Your task to perform on an android device: change alarm snooze length Image 0: 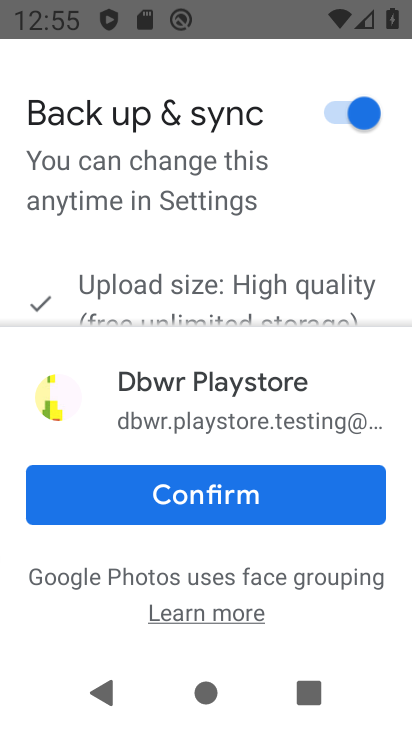
Step 0: press home button
Your task to perform on an android device: change alarm snooze length Image 1: 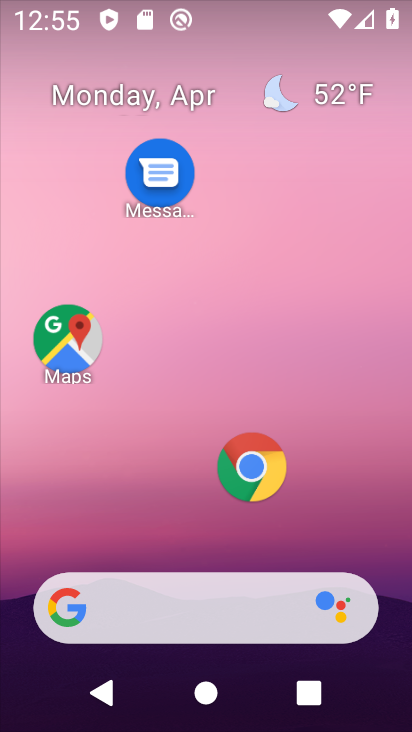
Step 1: drag from (233, 282) to (233, 108)
Your task to perform on an android device: change alarm snooze length Image 2: 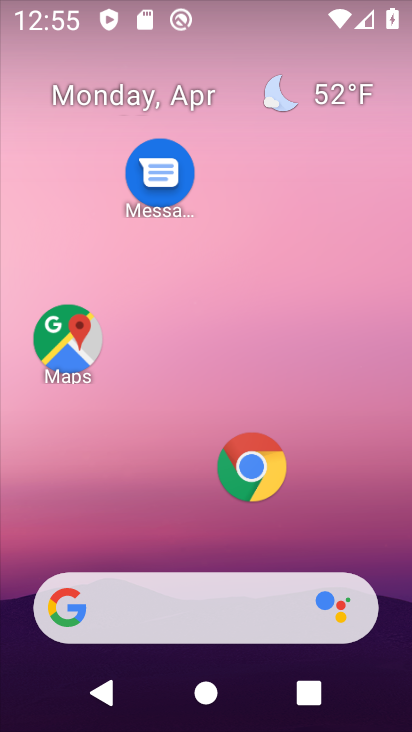
Step 2: drag from (216, 542) to (234, 147)
Your task to perform on an android device: change alarm snooze length Image 3: 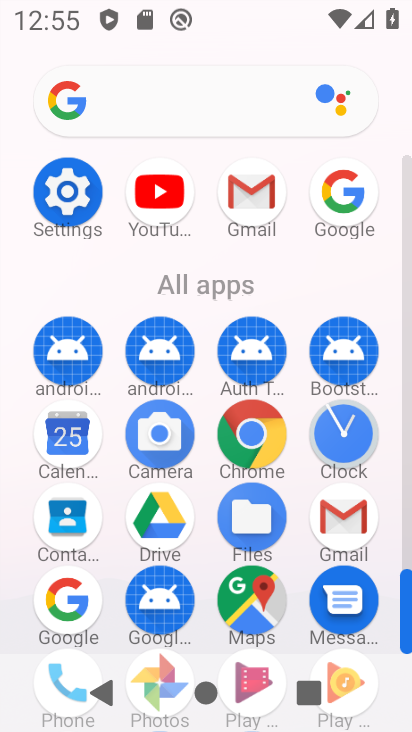
Step 3: click (323, 441)
Your task to perform on an android device: change alarm snooze length Image 4: 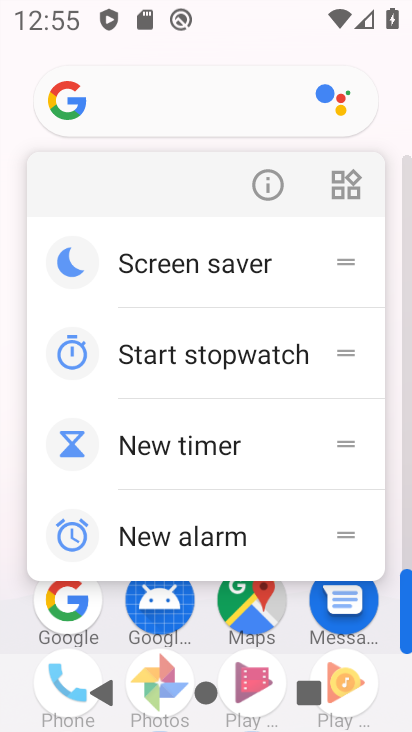
Step 4: click (13, 116)
Your task to perform on an android device: change alarm snooze length Image 5: 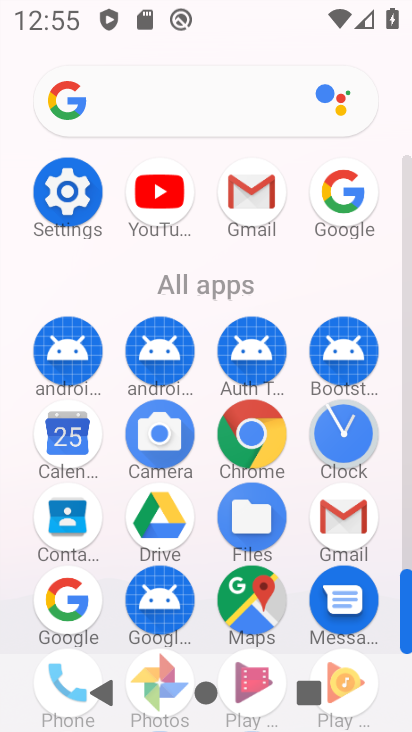
Step 5: click (337, 431)
Your task to perform on an android device: change alarm snooze length Image 6: 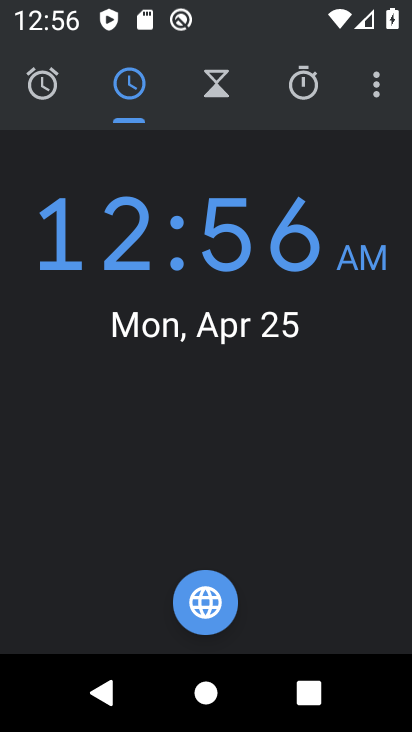
Step 6: click (371, 79)
Your task to perform on an android device: change alarm snooze length Image 7: 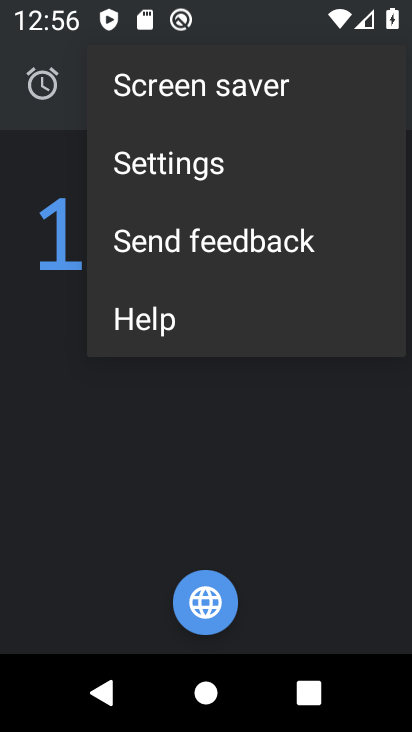
Step 7: click (175, 172)
Your task to perform on an android device: change alarm snooze length Image 8: 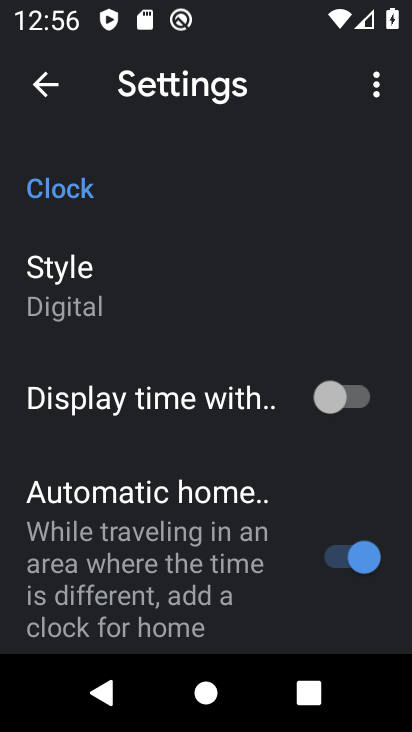
Step 8: drag from (167, 567) to (191, 231)
Your task to perform on an android device: change alarm snooze length Image 9: 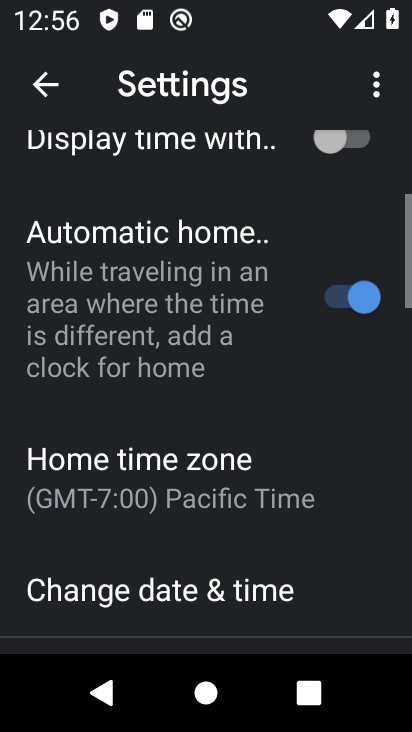
Step 9: drag from (205, 496) to (241, 179)
Your task to perform on an android device: change alarm snooze length Image 10: 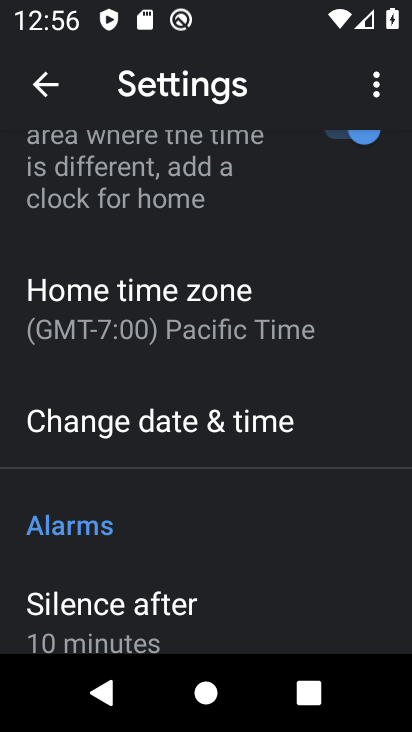
Step 10: drag from (212, 545) to (222, 307)
Your task to perform on an android device: change alarm snooze length Image 11: 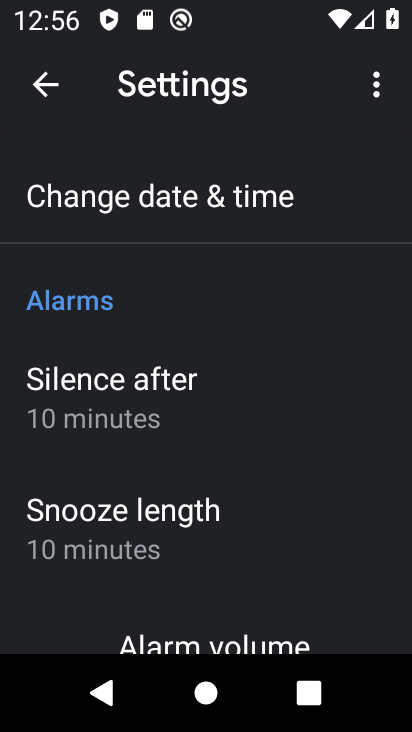
Step 11: drag from (259, 554) to (260, 175)
Your task to perform on an android device: change alarm snooze length Image 12: 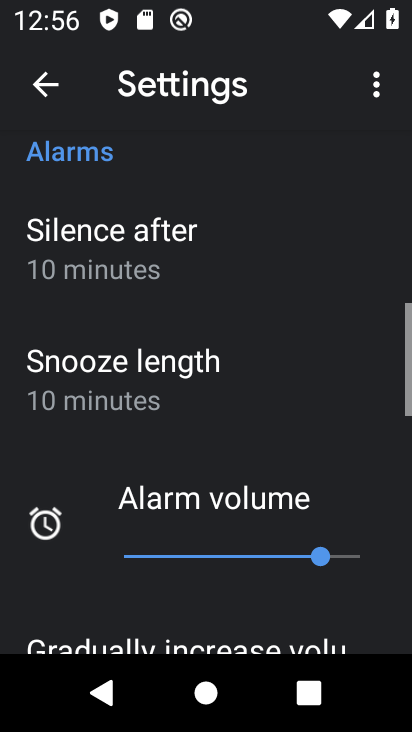
Step 12: drag from (270, 247) to (276, 190)
Your task to perform on an android device: change alarm snooze length Image 13: 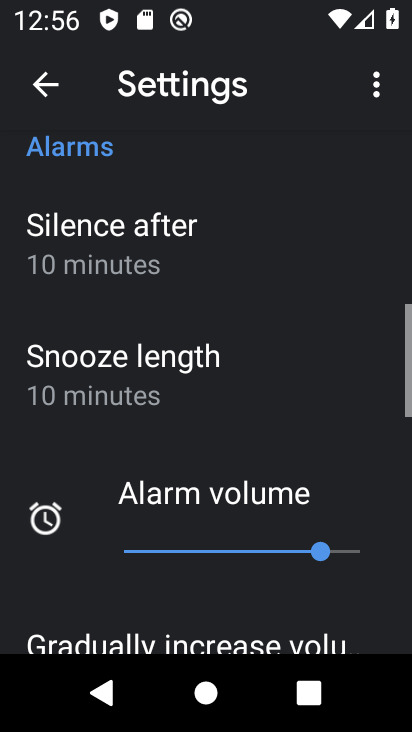
Step 13: drag from (257, 441) to (272, 221)
Your task to perform on an android device: change alarm snooze length Image 14: 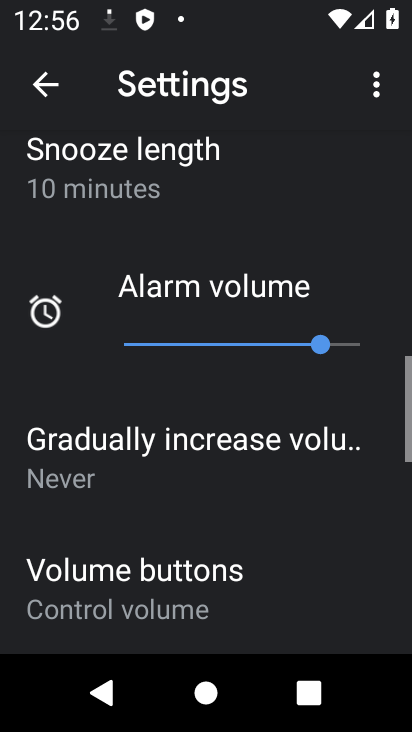
Step 14: drag from (266, 433) to (278, 262)
Your task to perform on an android device: change alarm snooze length Image 15: 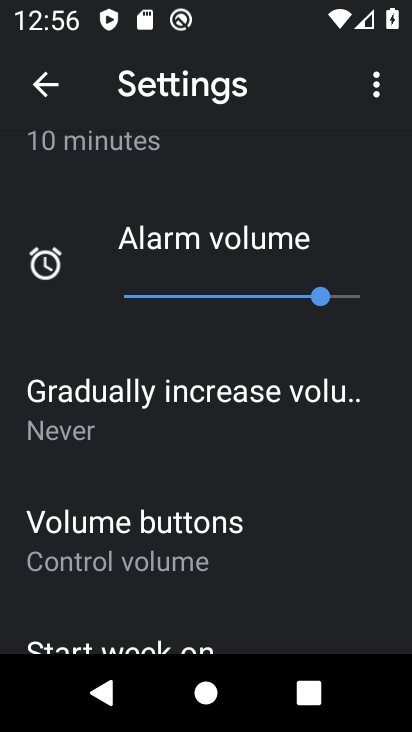
Step 15: drag from (256, 565) to (281, 260)
Your task to perform on an android device: change alarm snooze length Image 16: 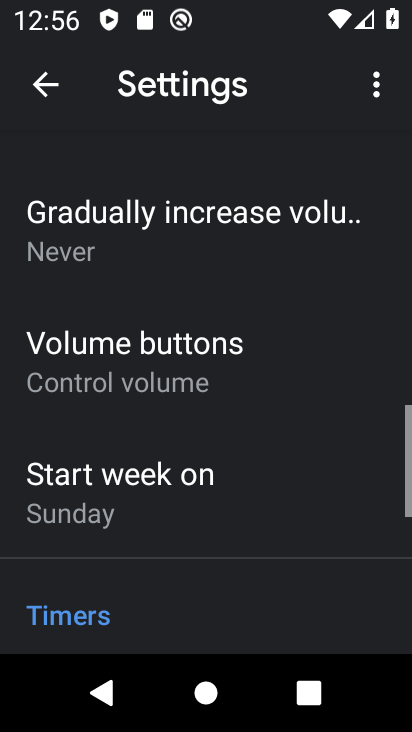
Step 16: drag from (247, 486) to (260, 272)
Your task to perform on an android device: change alarm snooze length Image 17: 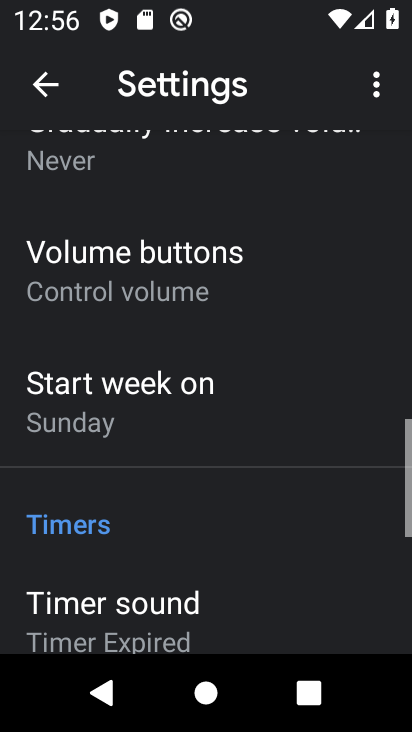
Step 17: drag from (243, 454) to (252, 282)
Your task to perform on an android device: change alarm snooze length Image 18: 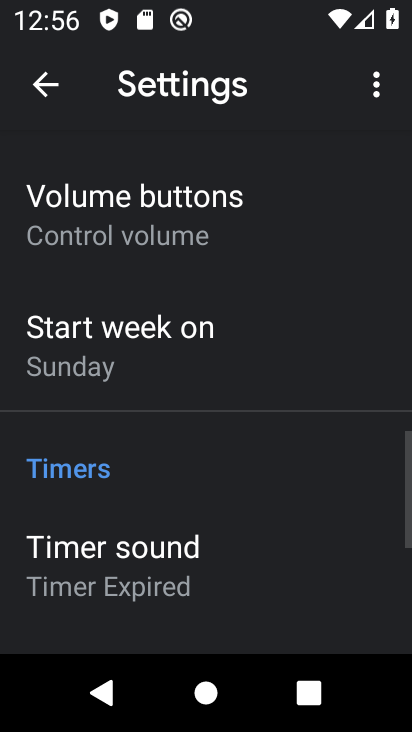
Step 18: drag from (244, 469) to (282, 29)
Your task to perform on an android device: change alarm snooze length Image 19: 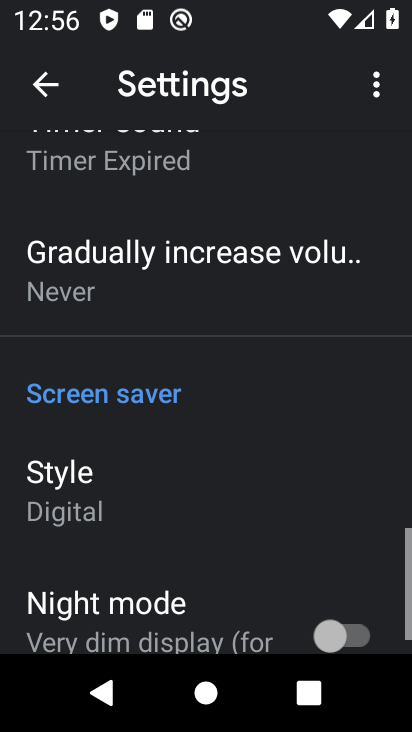
Step 19: drag from (274, 260) to (213, 591)
Your task to perform on an android device: change alarm snooze length Image 20: 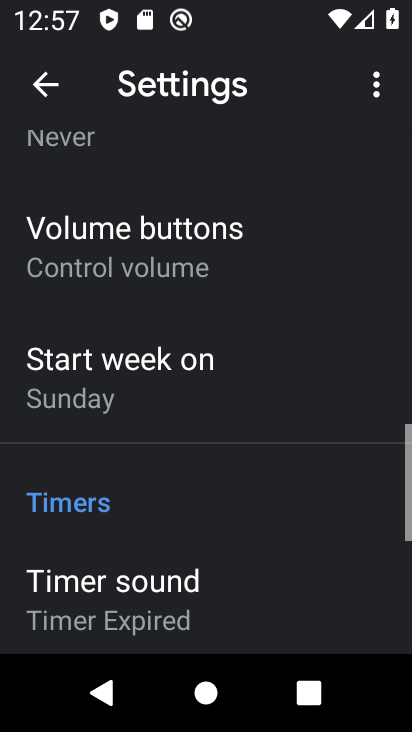
Step 20: drag from (258, 250) to (258, 540)
Your task to perform on an android device: change alarm snooze length Image 21: 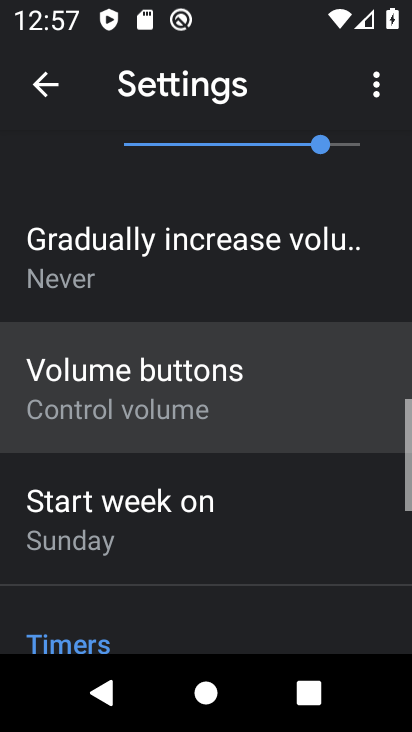
Step 21: drag from (285, 357) to (285, 544)
Your task to perform on an android device: change alarm snooze length Image 22: 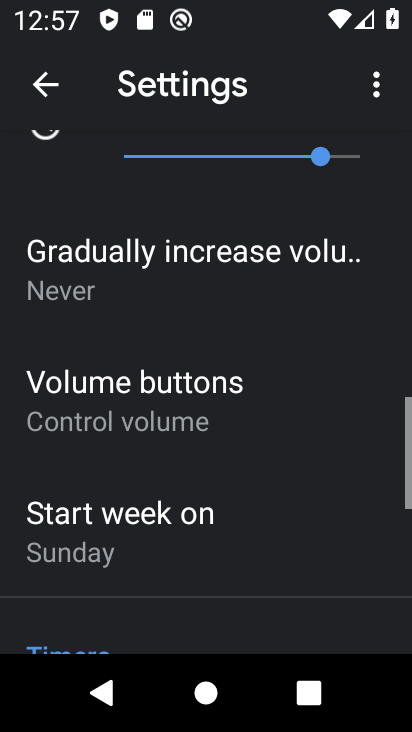
Step 22: drag from (251, 265) to (240, 530)
Your task to perform on an android device: change alarm snooze length Image 23: 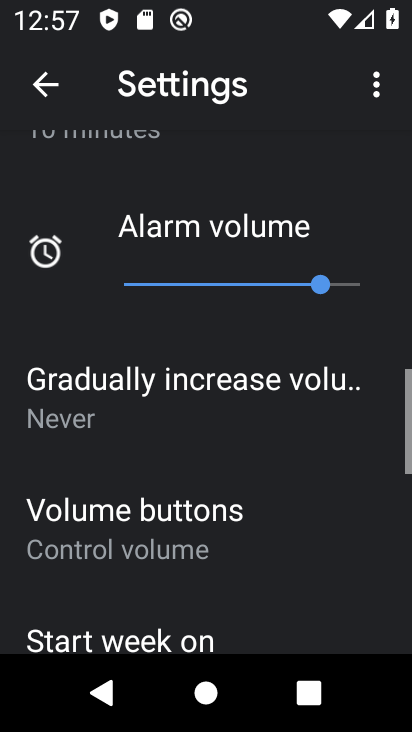
Step 23: drag from (256, 182) to (239, 479)
Your task to perform on an android device: change alarm snooze length Image 24: 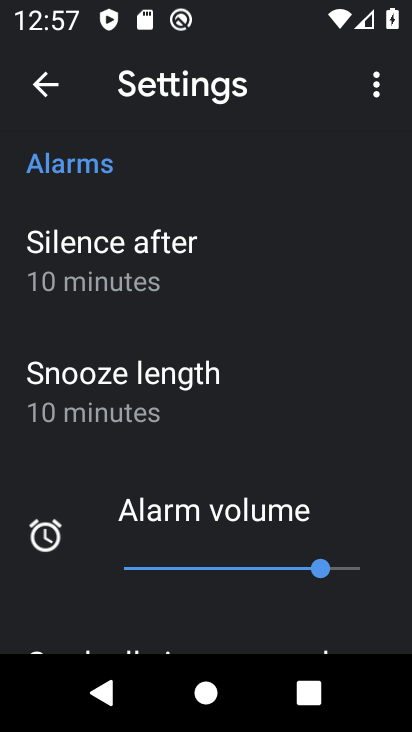
Step 24: drag from (271, 204) to (273, 449)
Your task to perform on an android device: change alarm snooze length Image 25: 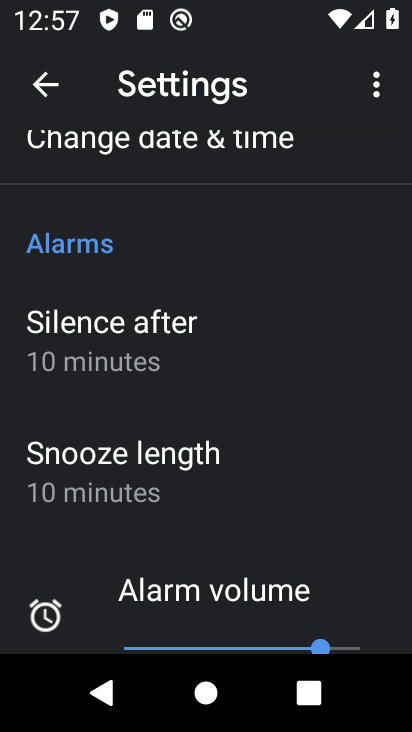
Step 25: click (230, 484)
Your task to perform on an android device: change alarm snooze length Image 26: 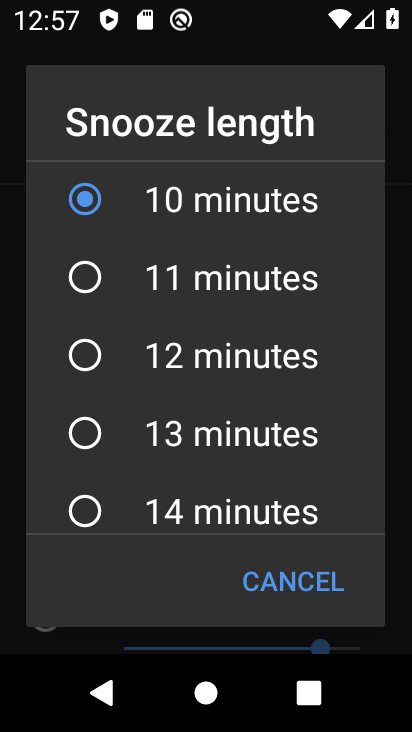
Step 26: click (220, 434)
Your task to perform on an android device: change alarm snooze length Image 27: 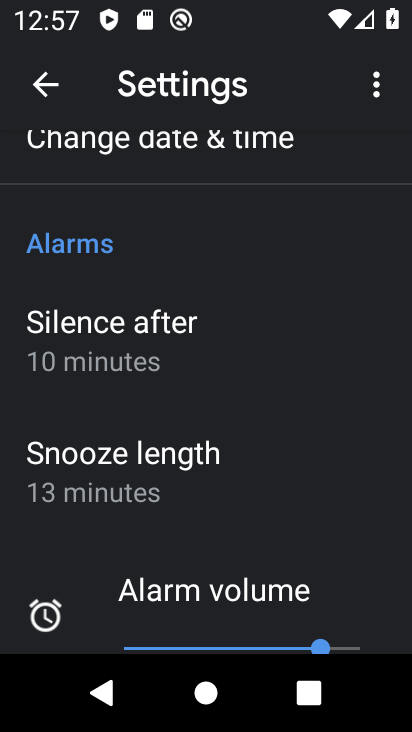
Step 27: task complete